Your task to perform on an android device: empty trash in the gmail app Image 0: 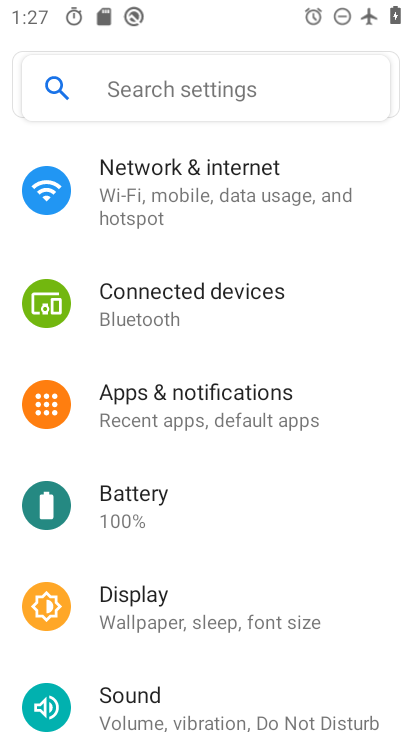
Step 0: press home button
Your task to perform on an android device: empty trash in the gmail app Image 1: 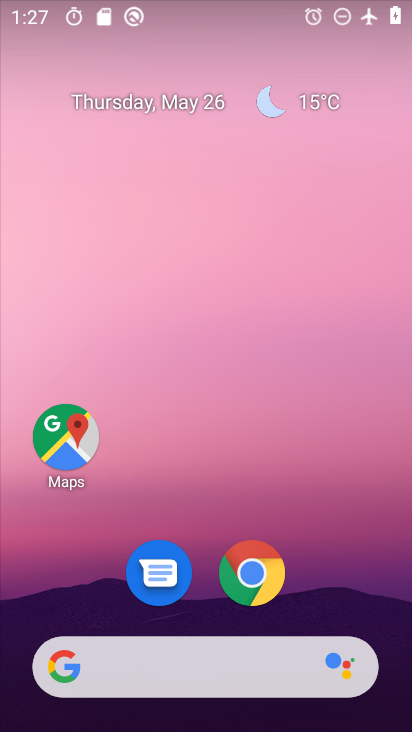
Step 1: drag from (354, 617) to (376, 1)
Your task to perform on an android device: empty trash in the gmail app Image 2: 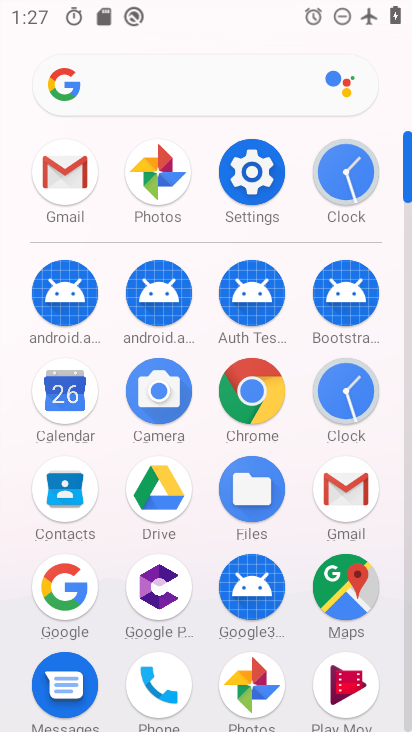
Step 2: click (63, 175)
Your task to perform on an android device: empty trash in the gmail app Image 3: 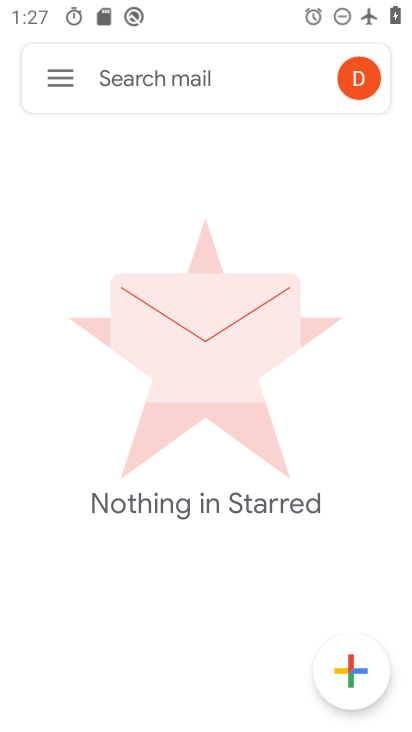
Step 3: click (57, 80)
Your task to perform on an android device: empty trash in the gmail app Image 4: 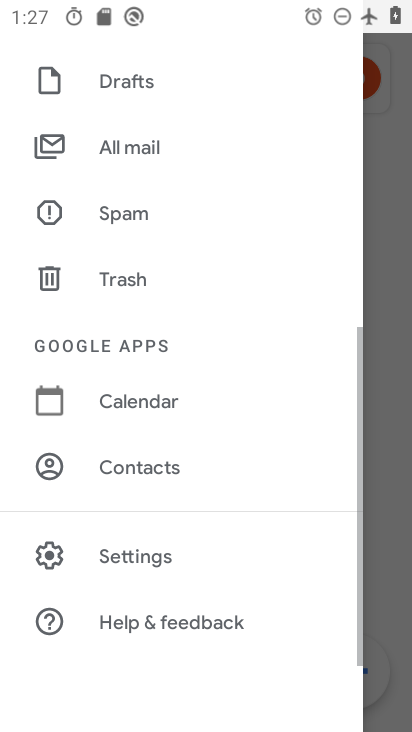
Step 4: click (103, 286)
Your task to perform on an android device: empty trash in the gmail app Image 5: 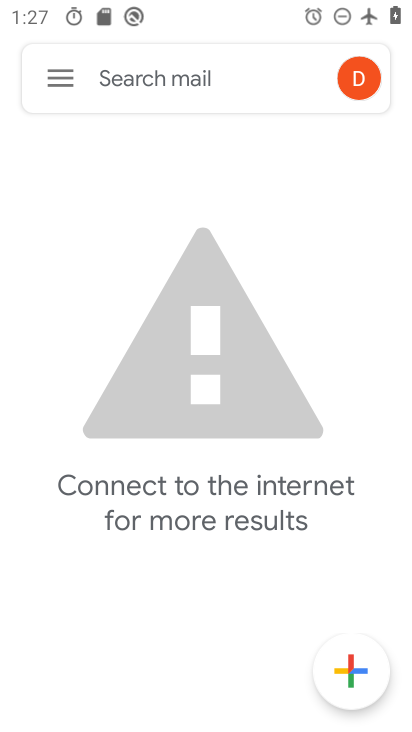
Step 5: task complete